Your task to perform on an android device: visit the assistant section in the google photos Image 0: 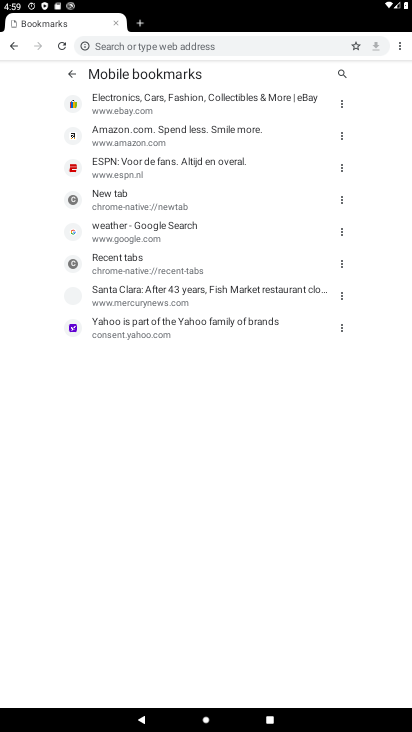
Step 0: press home button
Your task to perform on an android device: visit the assistant section in the google photos Image 1: 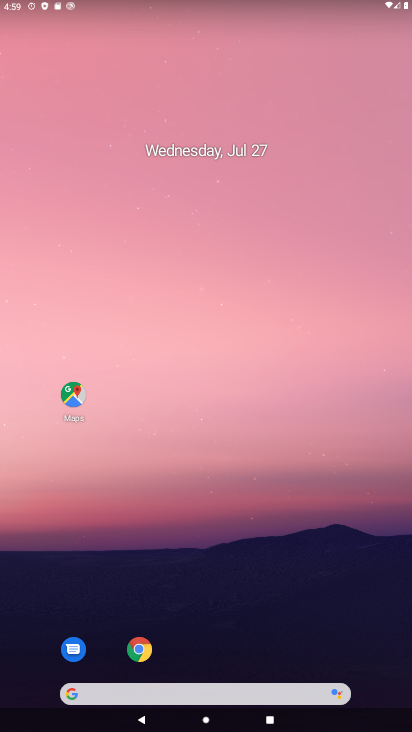
Step 1: drag from (163, 698) to (246, 0)
Your task to perform on an android device: visit the assistant section in the google photos Image 2: 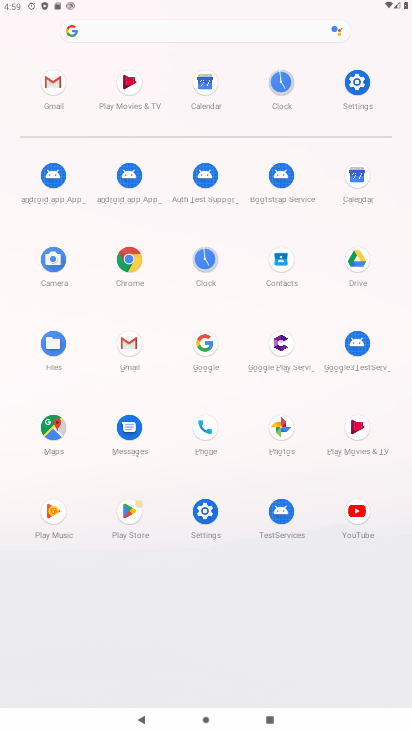
Step 2: click (283, 426)
Your task to perform on an android device: visit the assistant section in the google photos Image 3: 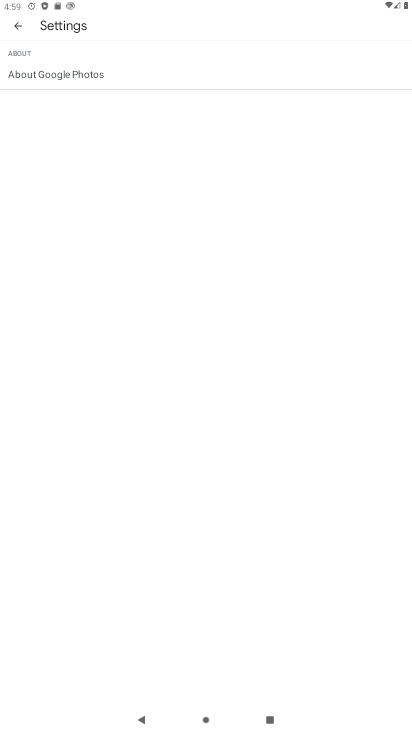
Step 3: press back button
Your task to perform on an android device: visit the assistant section in the google photos Image 4: 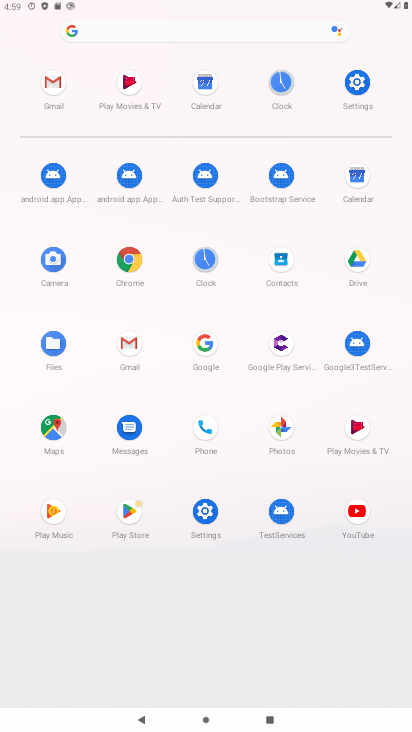
Step 4: click (281, 425)
Your task to perform on an android device: visit the assistant section in the google photos Image 5: 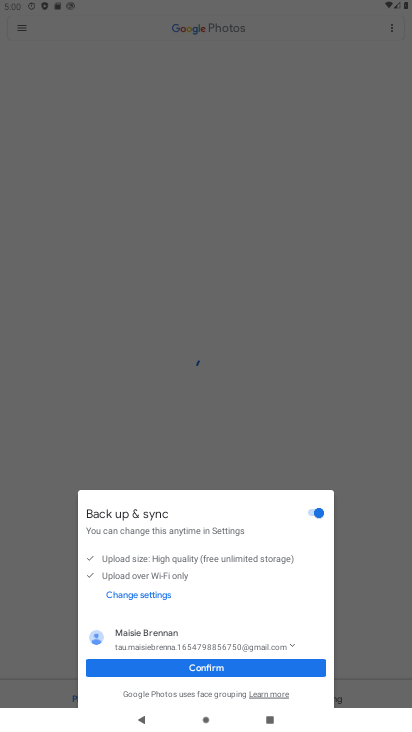
Step 5: click (221, 667)
Your task to perform on an android device: visit the assistant section in the google photos Image 6: 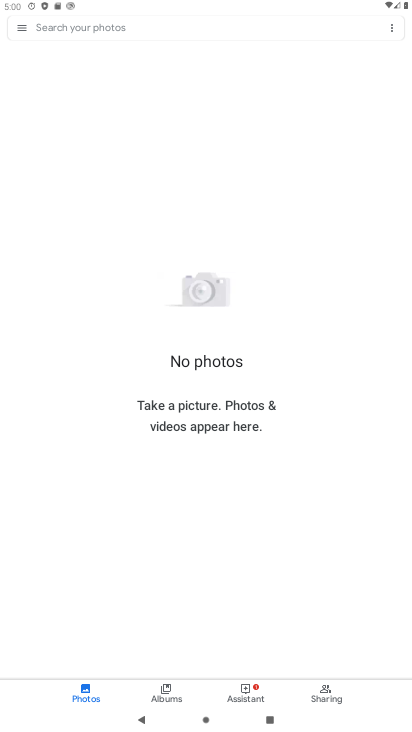
Step 6: click (243, 691)
Your task to perform on an android device: visit the assistant section in the google photos Image 7: 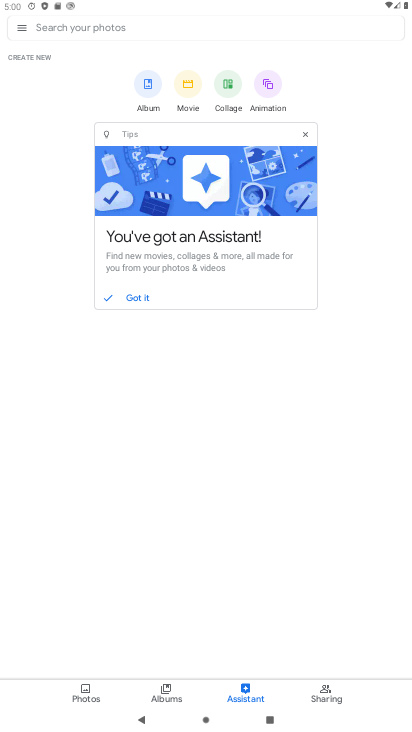
Step 7: task complete